Your task to perform on an android device: Open the calendar and show me this week's events? Image 0: 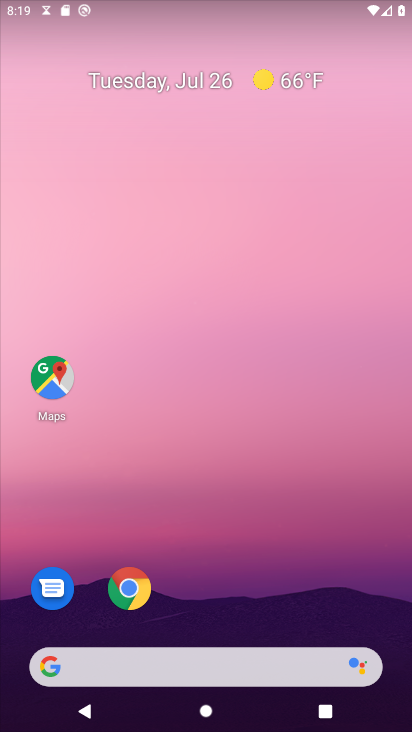
Step 0: drag from (229, 701) to (217, 147)
Your task to perform on an android device: Open the calendar and show me this week's events? Image 1: 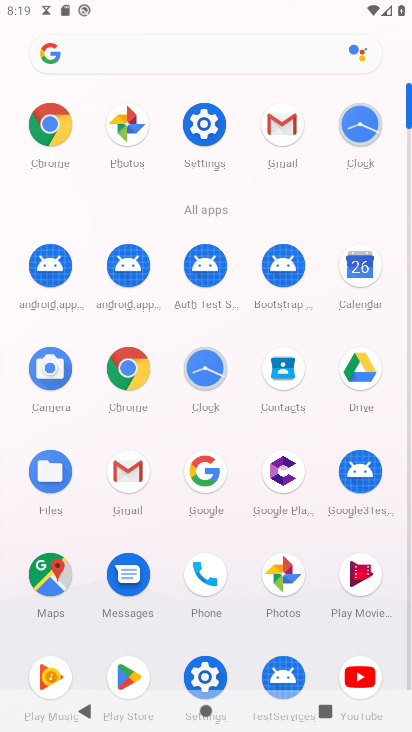
Step 1: click (357, 265)
Your task to perform on an android device: Open the calendar and show me this week's events? Image 2: 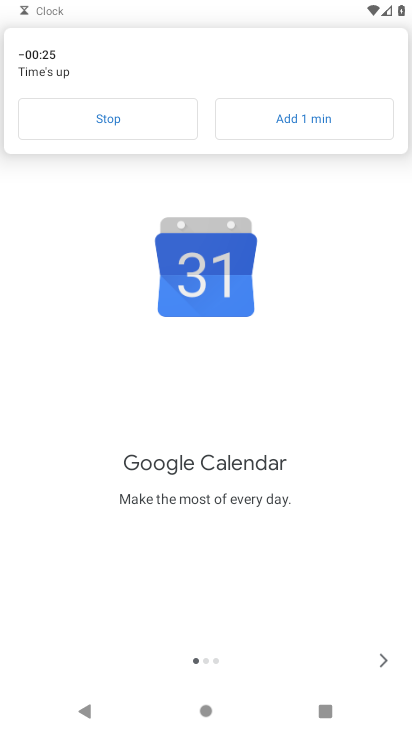
Step 2: click (382, 655)
Your task to perform on an android device: Open the calendar and show me this week's events? Image 3: 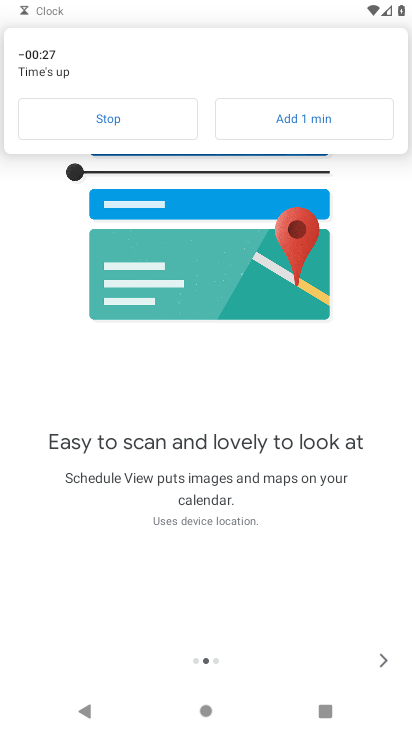
Step 3: click (381, 657)
Your task to perform on an android device: Open the calendar and show me this week's events? Image 4: 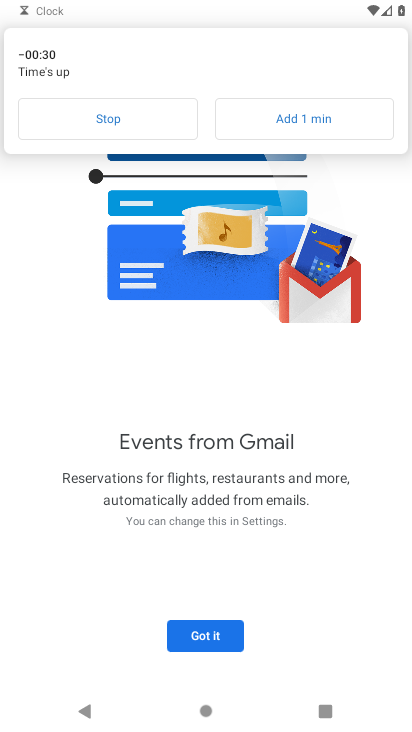
Step 4: click (201, 639)
Your task to perform on an android device: Open the calendar and show me this week's events? Image 5: 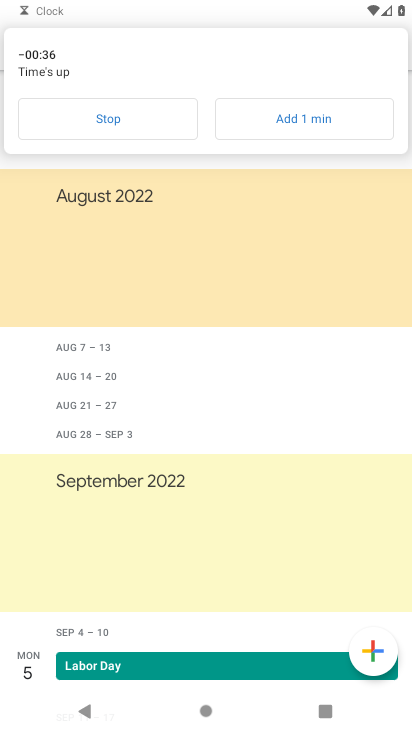
Step 5: click (120, 121)
Your task to perform on an android device: Open the calendar and show me this week's events? Image 6: 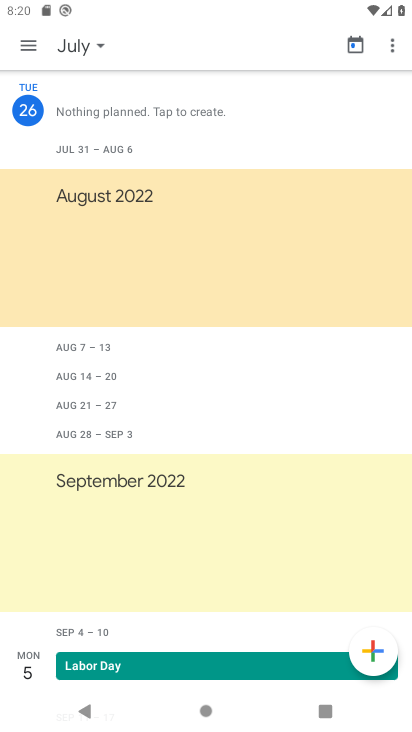
Step 6: click (26, 47)
Your task to perform on an android device: Open the calendar and show me this week's events? Image 7: 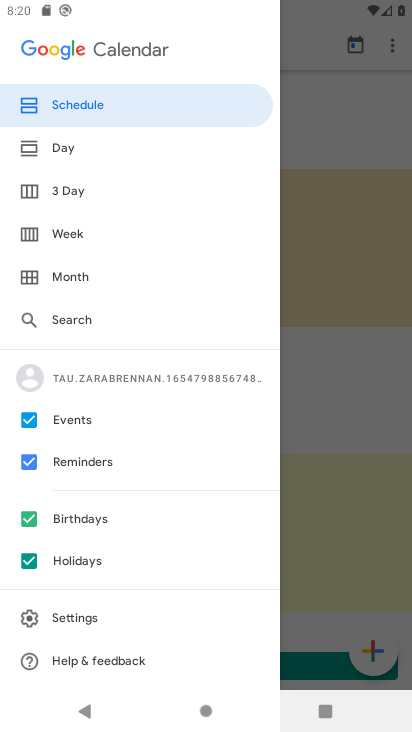
Step 7: click (29, 557)
Your task to perform on an android device: Open the calendar and show me this week's events? Image 8: 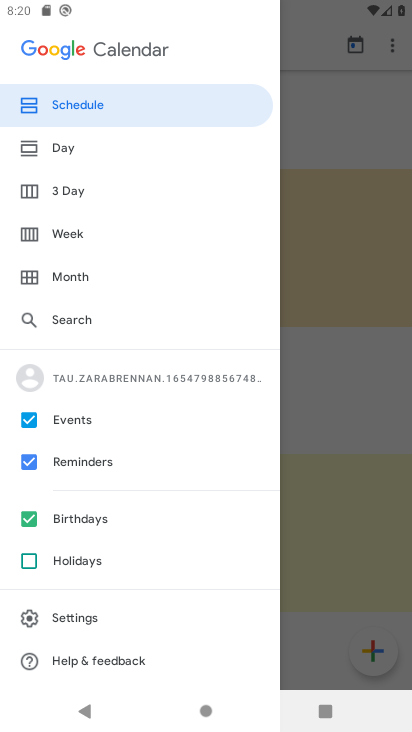
Step 8: click (29, 515)
Your task to perform on an android device: Open the calendar and show me this week's events? Image 9: 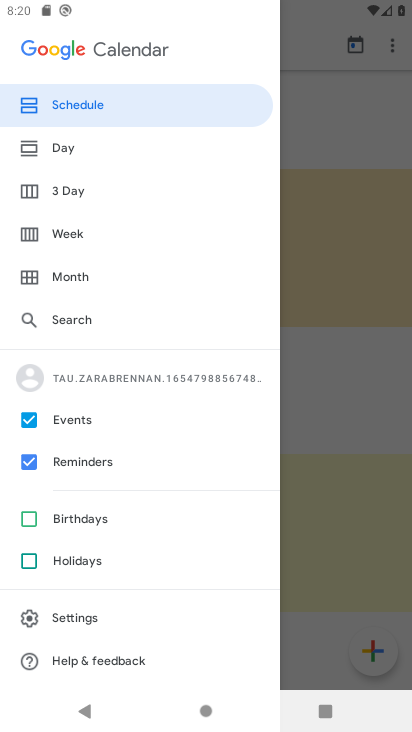
Step 9: click (29, 453)
Your task to perform on an android device: Open the calendar and show me this week's events? Image 10: 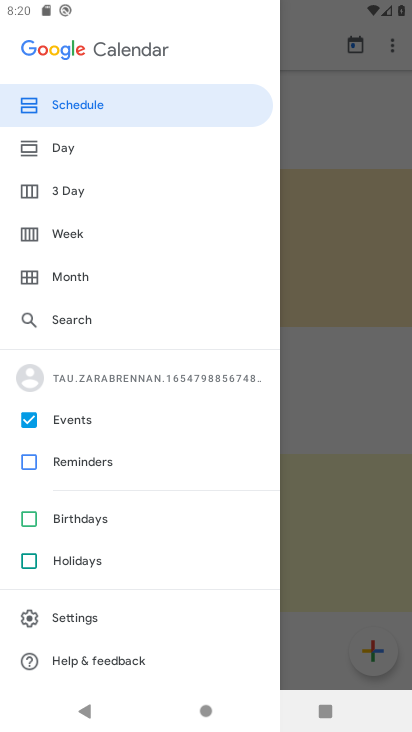
Step 10: click (62, 236)
Your task to perform on an android device: Open the calendar and show me this week's events? Image 11: 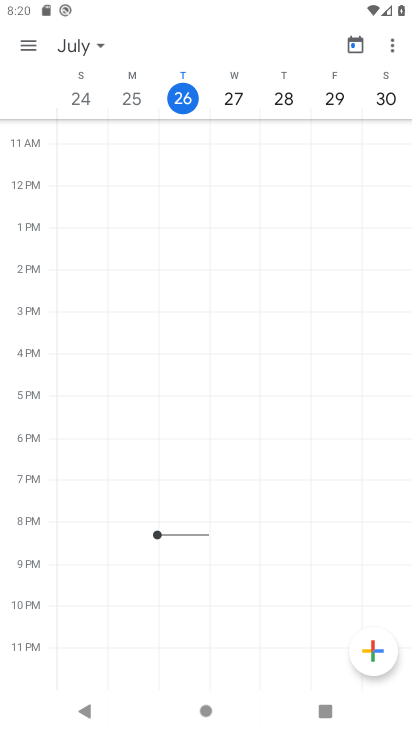
Step 11: task complete